Your task to perform on an android device: See recent photos Image 0: 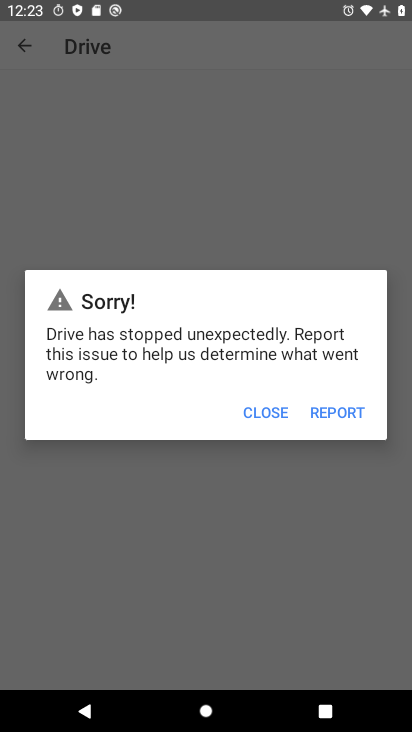
Step 0: press home button
Your task to perform on an android device: See recent photos Image 1: 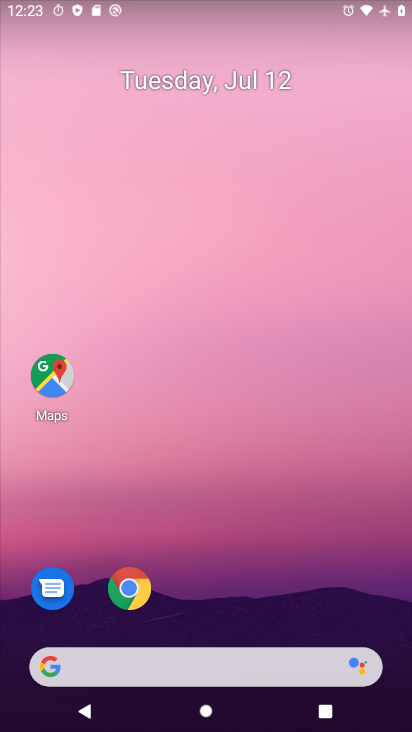
Step 1: drag from (157, 671) to (233, 124)
Your task to perform on an android device: See recent photos Image 2: 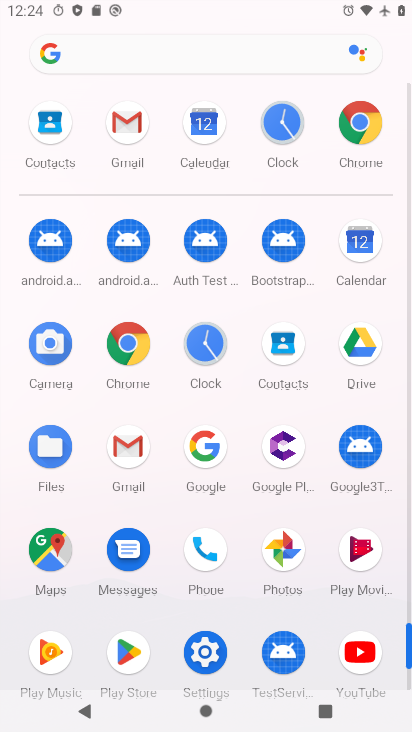
Step 2: click (282, 550)
Your task to perform on an android device: See recent photos Image 3: 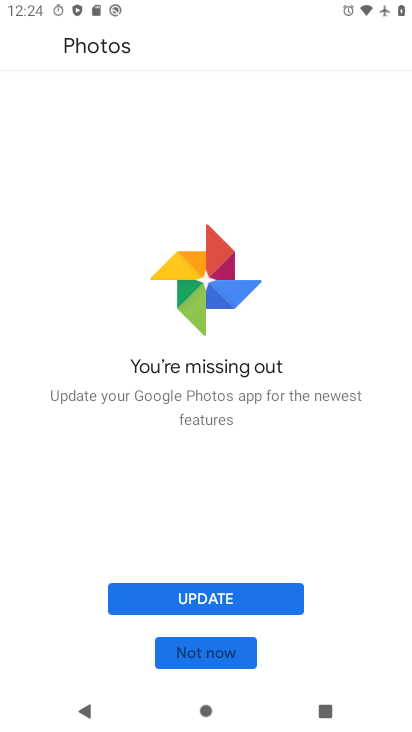
Step 3: click (213, 600)
Your task to perform on an android device: See recent photos Image 4: 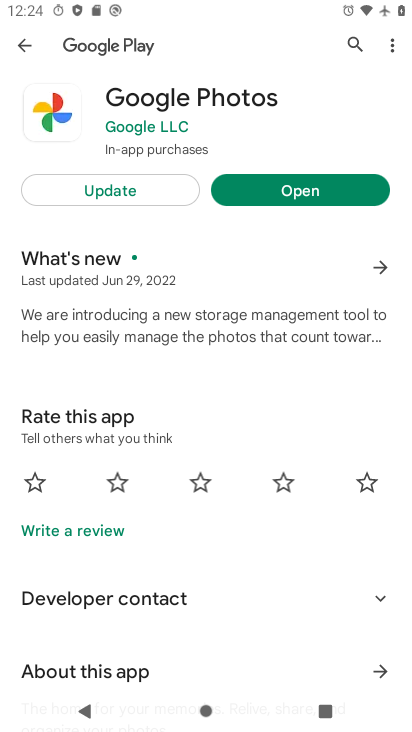
Step 4: click (299, 187)
Your task to perform on an android device: See recent photos Image 5: 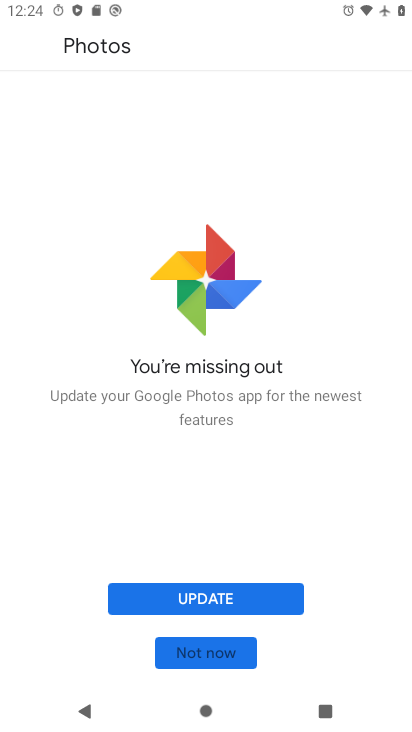
Step 5: click (211, 604)
Your task to perform on an android device: See recent photos Image 6: 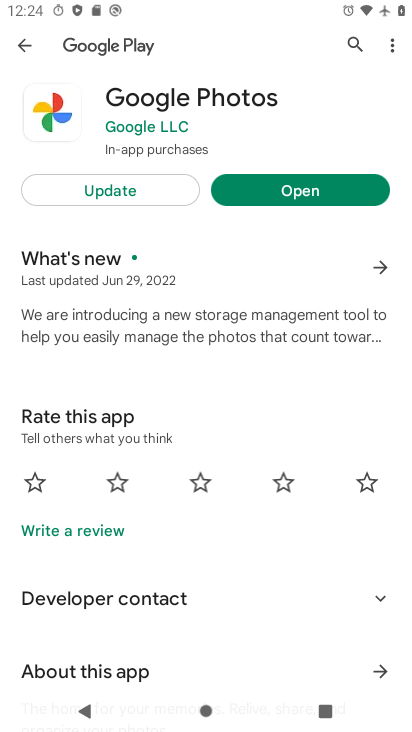
Step 6: click (105, 187)
Your task to perform on an android device: See recent photos Image 7: 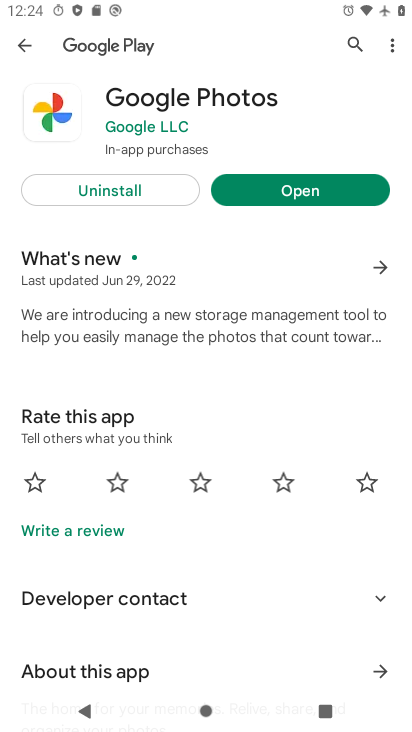
Step 7: click (282, 196)
Your task to perform on an android device: See recent photos Image 8: 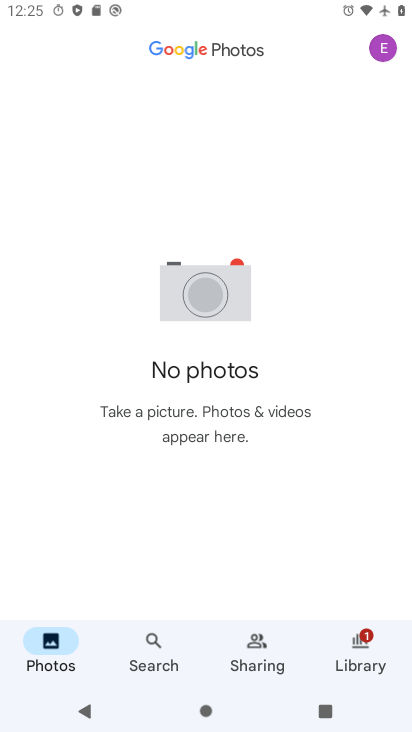
Step 8: task complete